Your task to perform on an android device: Play the last video I watched on Youtube Image 0: 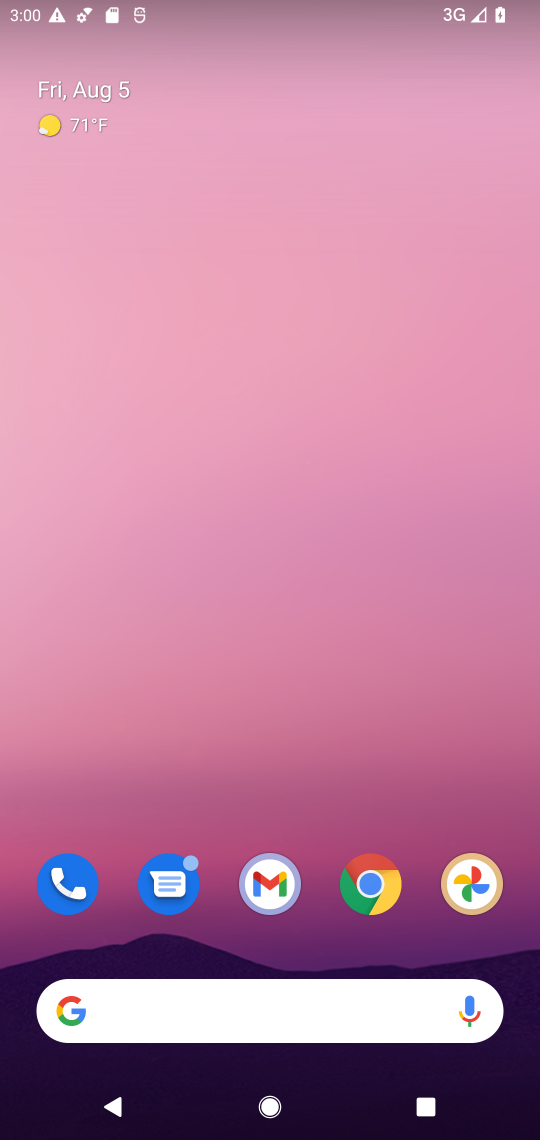
Step 0: drag from (415, 910) to (259, 42)
Your task to perform on an android device: Play the last video I watched on Youtube Image 1: 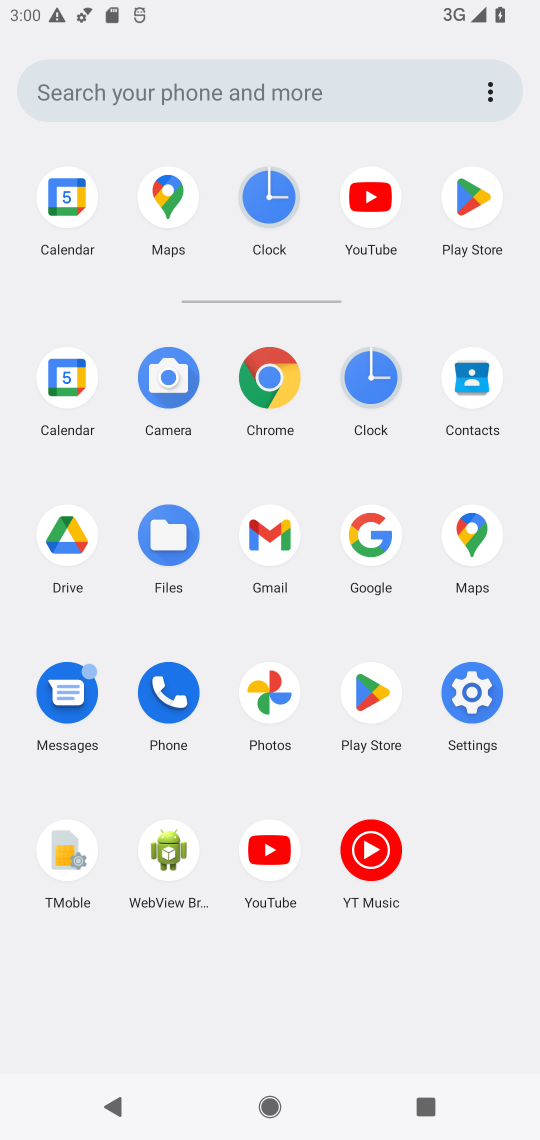
Step 1: click (270, 854)
Your task to perform on an android device: Play the last video I watched on Youtube Image 2: 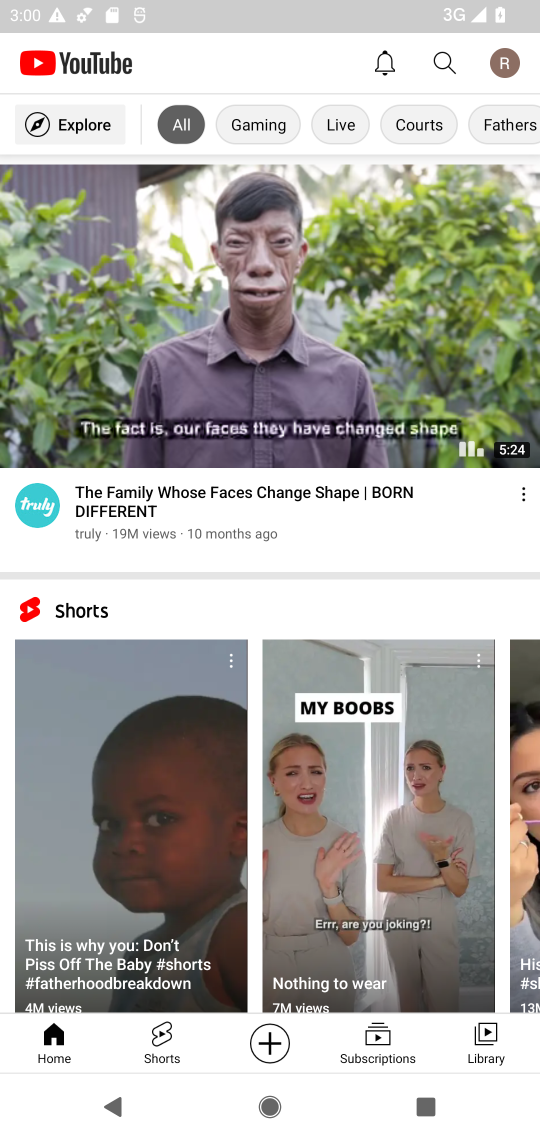
Step 2: task complete